Your task to perform on an android device: open app "Microsoft Outlook" (install if not already installed) Image 0: 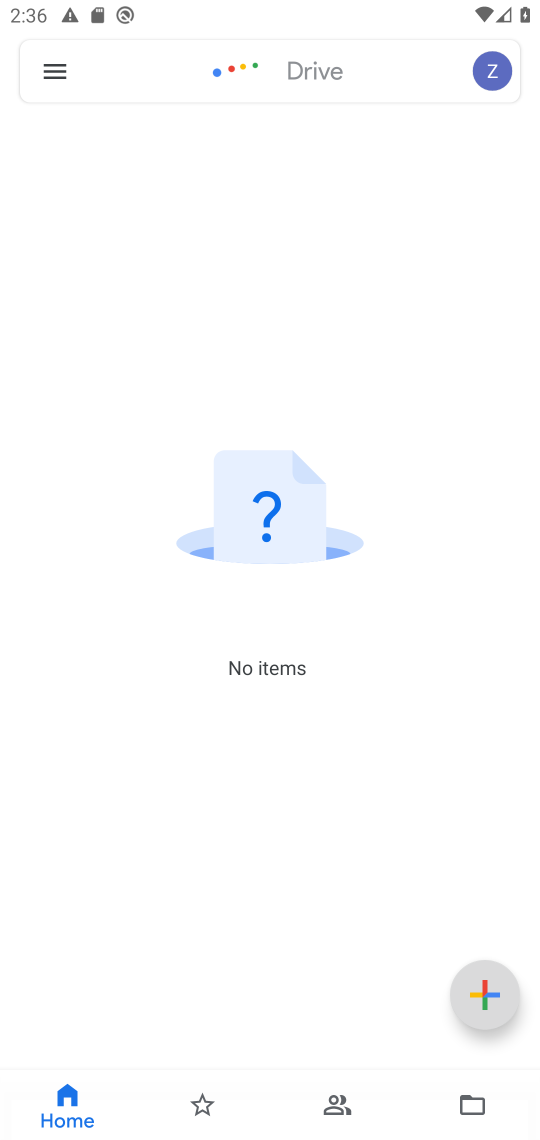
Step 0: press home button
Your task to perform on an android device: open app "Microsoft Outlook" (install if not already installed) Image 1: 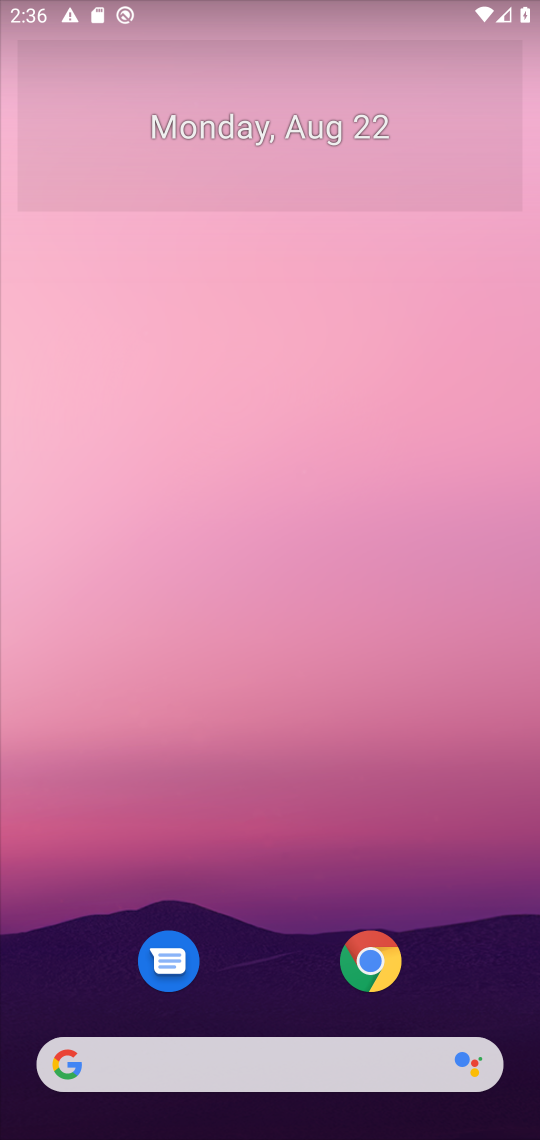
Step 1: drag from (475, 879) to (478, 96)
Your task to perform on an android device: open app "Microsoft Outlook" (install if not already installed) Image 2: 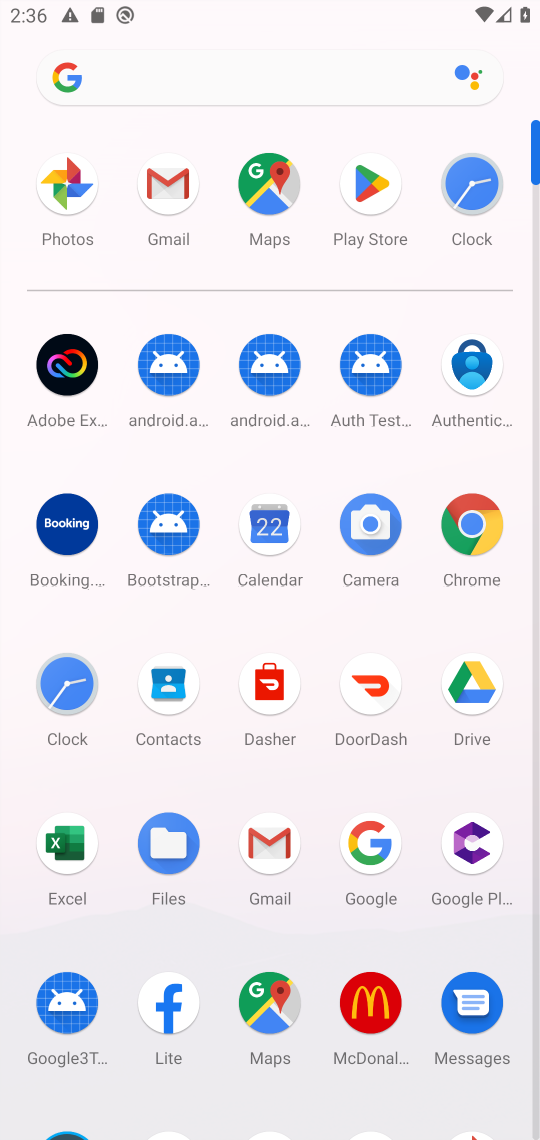
Step 2: click (370, 190)
Your task to perform on an android device: open app "Microsoft Outlook" (install if not already installed) Image 3: 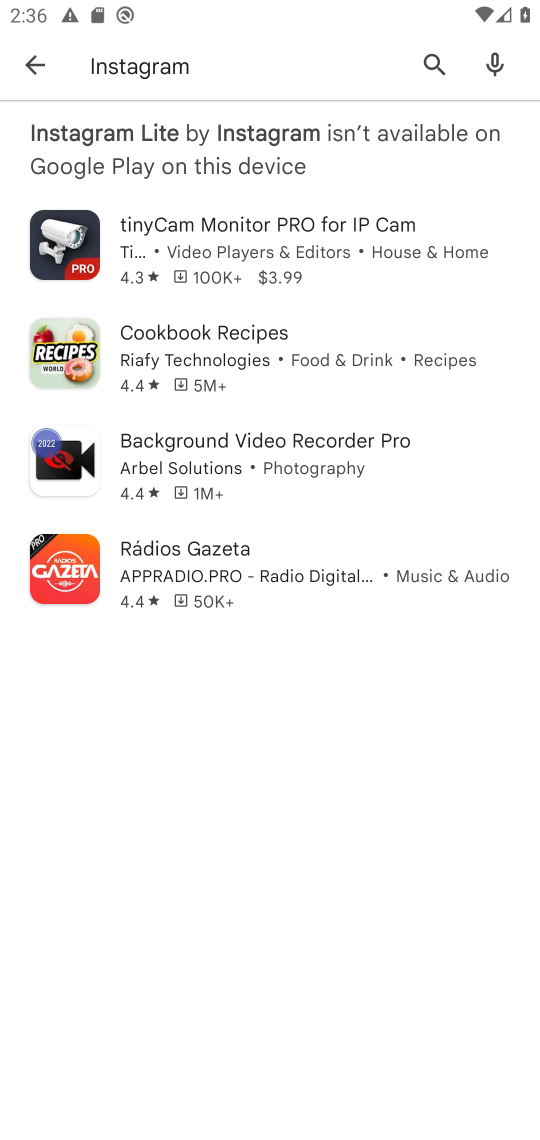
Step 3: press back button
Your task to perform on an android device: open app "Microsoft Outlook" (install if not already installed) Image 4: 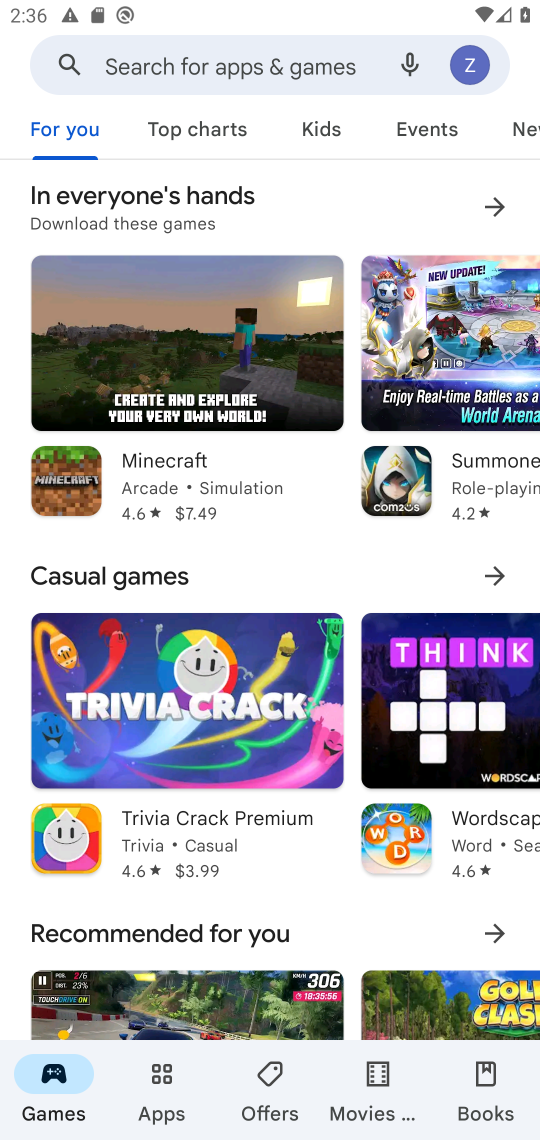
Step 4: click (258, 63)
Your task to perform on an android device: open app "Microsoft Outlook" (install if not already installed) Image 5: 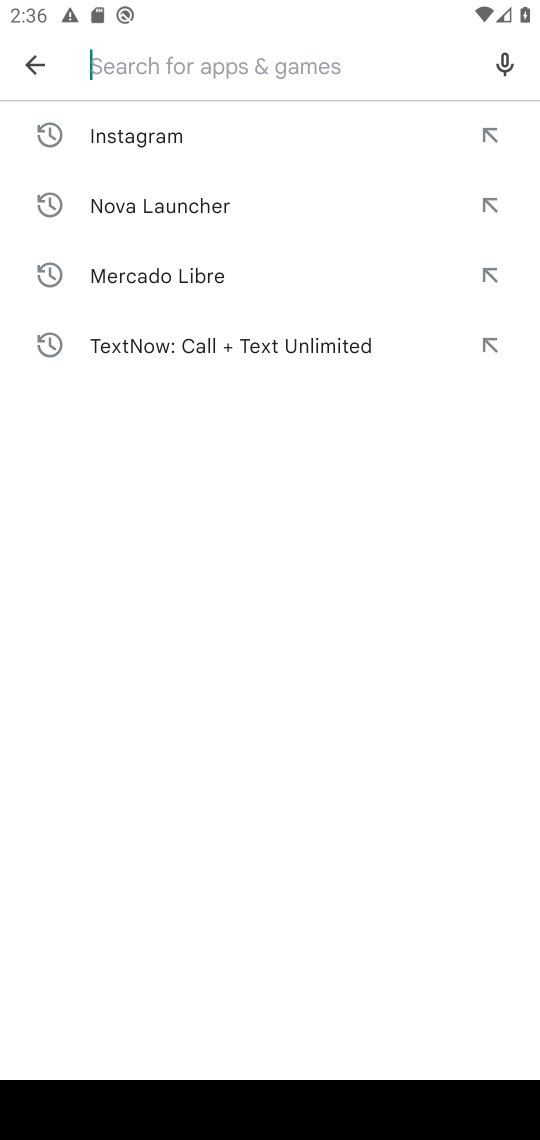
Step 5: press enter
Your task to perform on an android device: open app "Microsoft Outlook" (install if not already installed) Image 6: 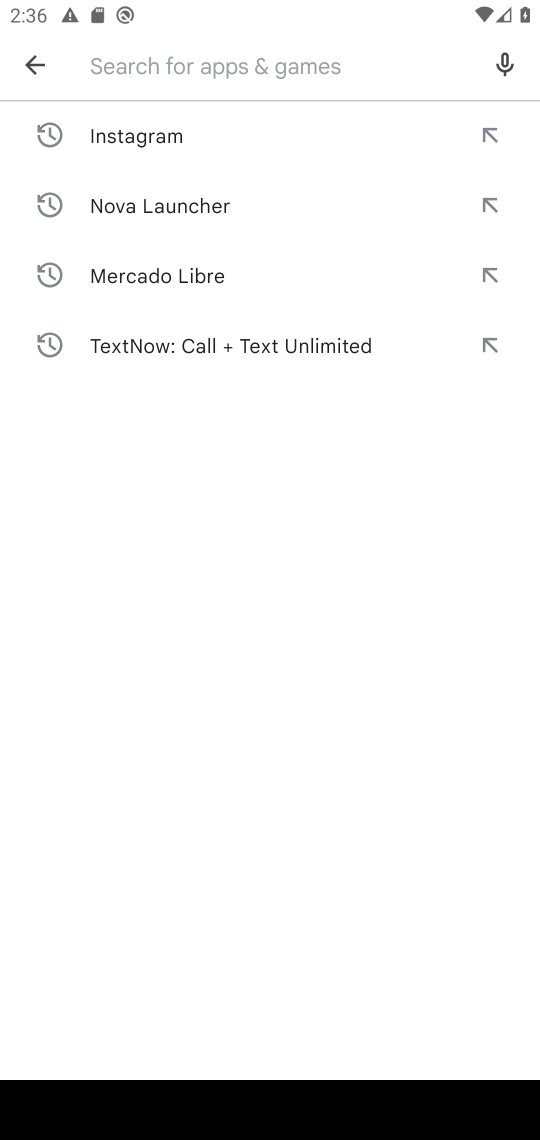
Step 6: type "Microsoft Outlook"
Your task to perform on an android device: open app "Microsoft Outlook" (install if not already installed) Image 7: 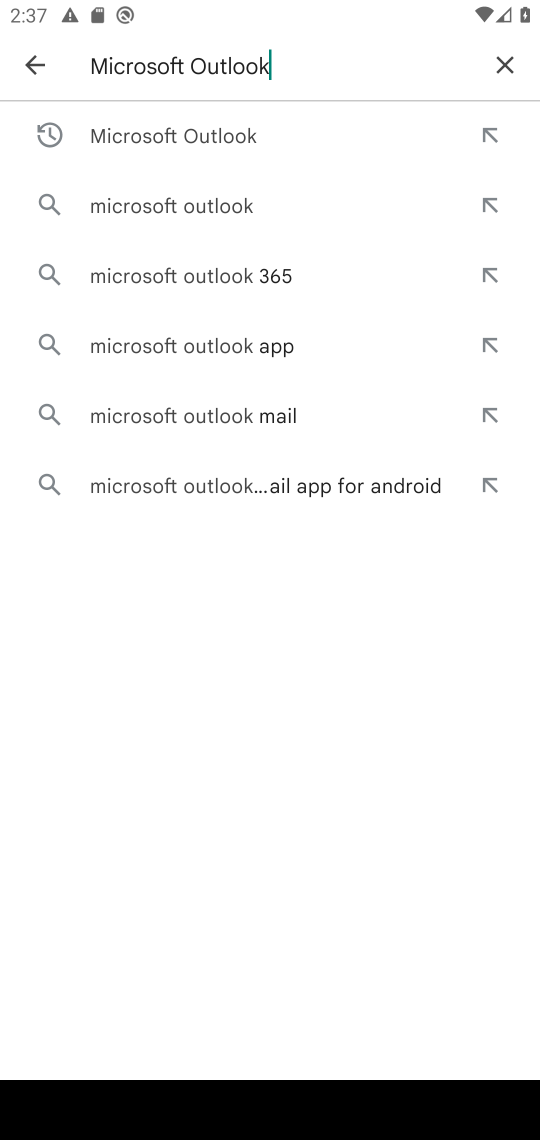
Step 7: click (227, 145)
Your task to perform on an android device: open app "Microsoft Outlook" (install if not already installed) Image 8: 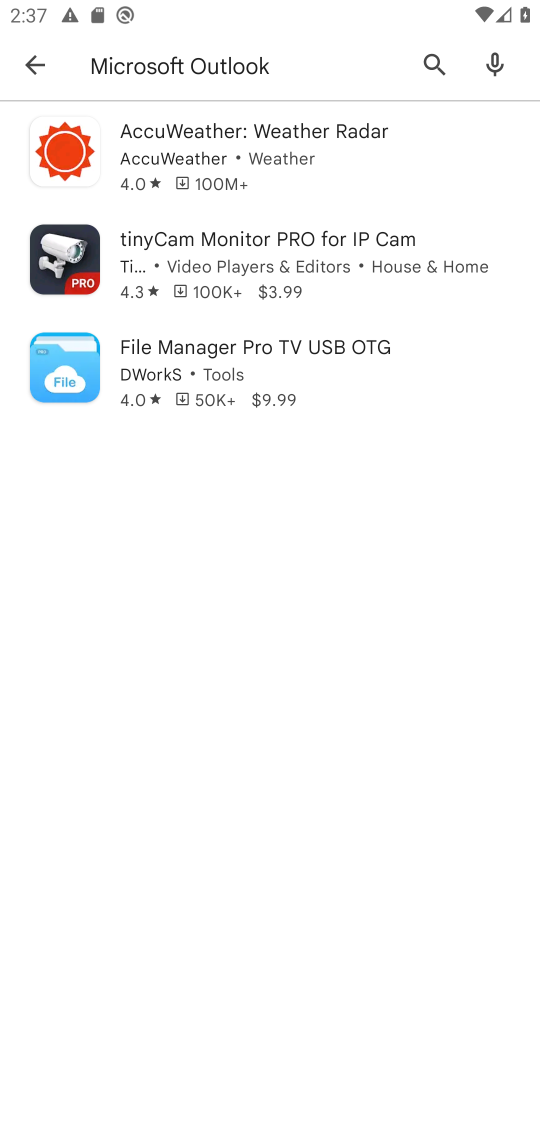
Step 8: task complete